Your task to perform on an android device: see tabs open on other devices in the chrome app Image 0: 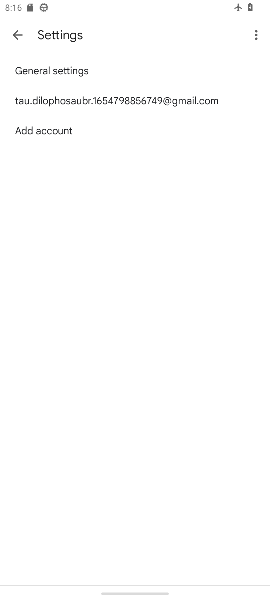
Step 0: drag from (179, 497) to (147, 105)
Your task to perform on an android device: see tabs open on other devices in the chrome app Image 1: 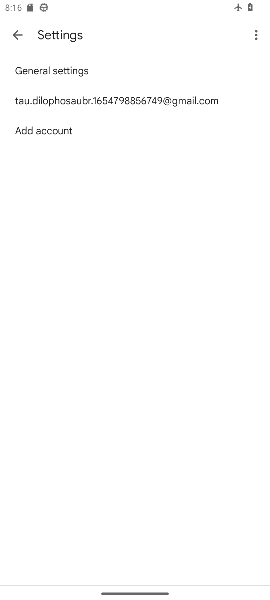
Step 1: press home button
Your task to perform on an android device: see tabs open on other devices in the chrome app Image 2: 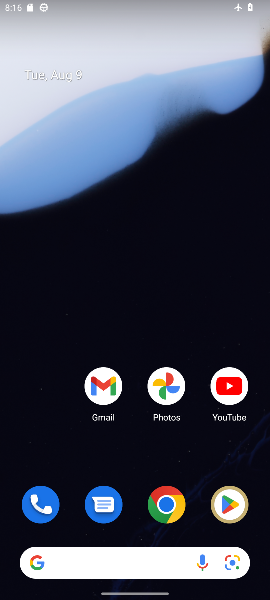
Step 2: drag from (141, 505) to (148, 133)
Your task to perform on an android device: see tabs open on other devices in the chrome app Image 3: 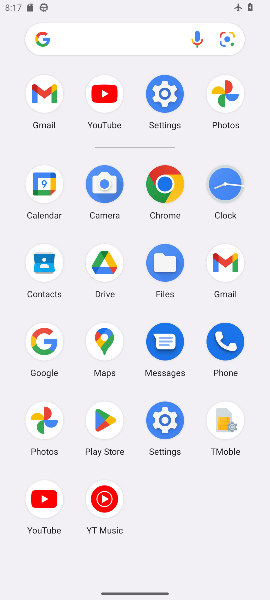
Step 3: click (155, 205)
Your task to perform on an android device: see tabs open on other devices in the chrome app Image 4: 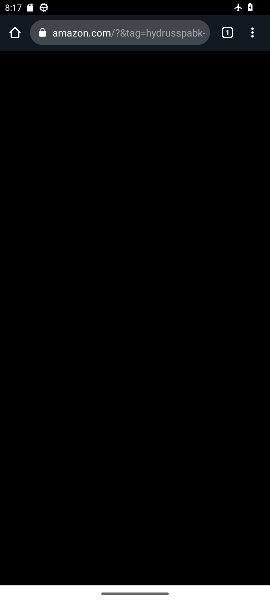
Step 4: task complete